Your task to perform on an android device: Search for seafood restaurants on Google Maps Image 0: 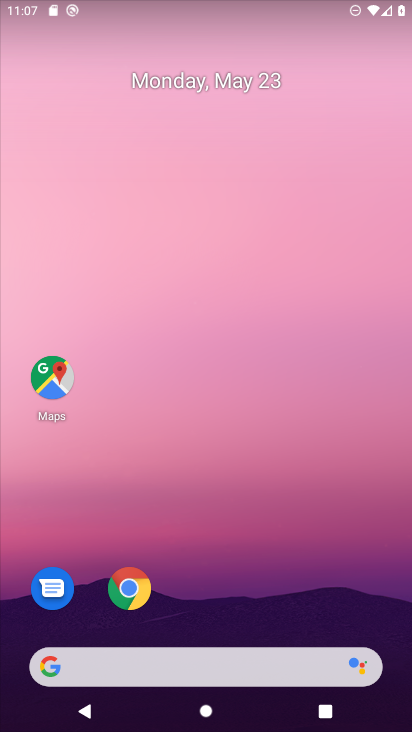
Step 0: click (60, 370)
Your task to perform on an android device: Search for seafood restaurants on Google Maps Image 1: 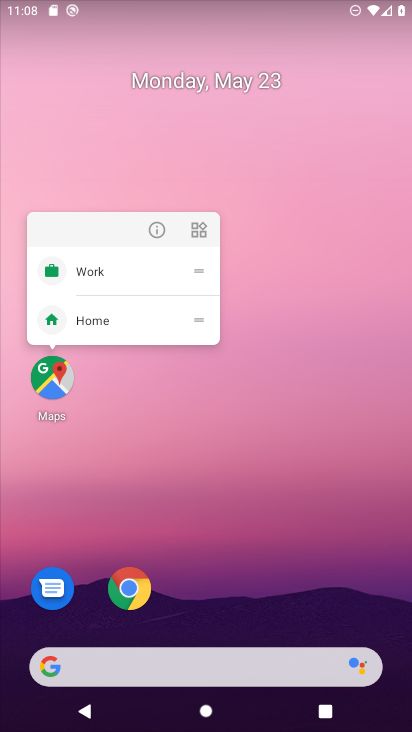
Step 1: click (52, 386)
Your task to perform on an android device: Search for seafood restaurants on Google Maps Image 2: 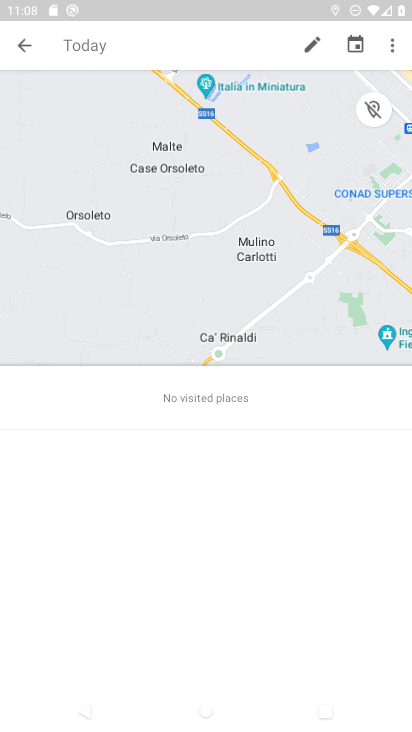
Step 2: click (5, 50)
Your task to perform on an android device: Search for seafood restaurants on Google Maps Image 3: 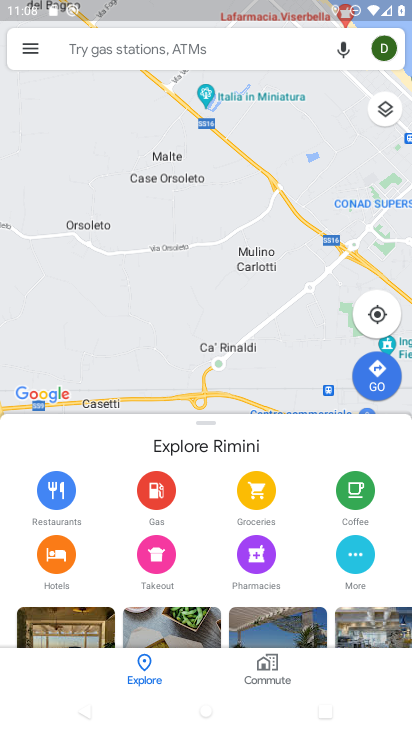
Step 3: click (122, 53)
Your task to perform on an android device: Search for seafood restaurants on Google Maps Image 4: 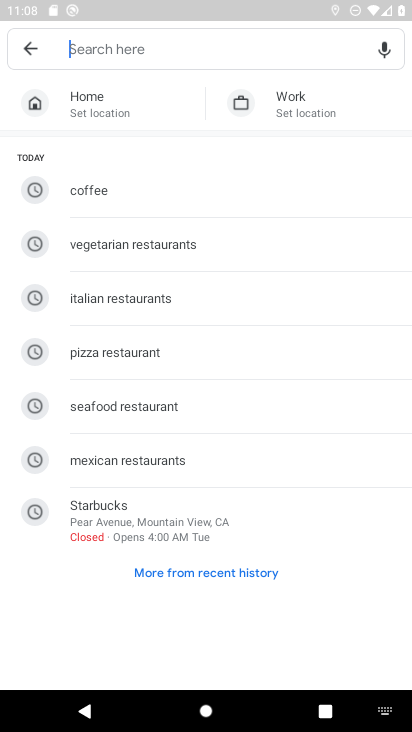
Step 4: type "seafood restaurants"
Your task to perform on an android device: Search for seafood restaurants on Google Maps Image 5: 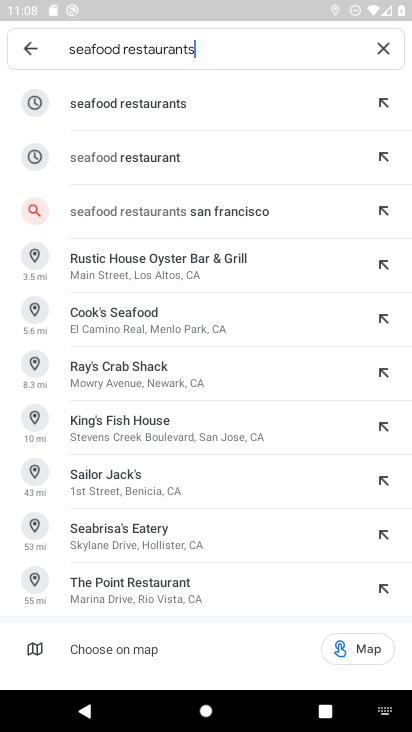
Step 5: click (189, 100)
Your task to perform on an android device: Search for seafood restaurants on Google Maps Image 6: 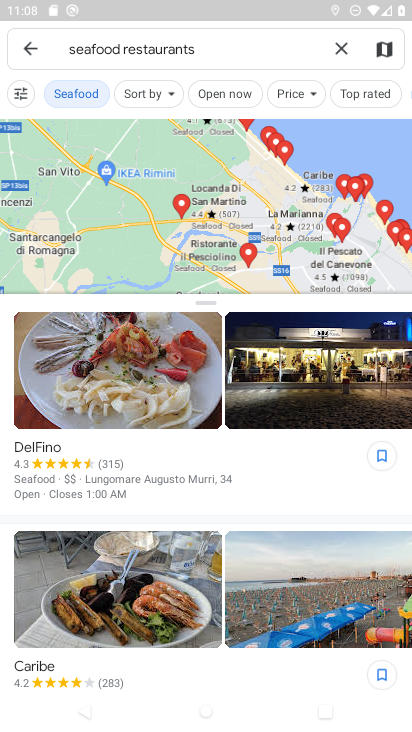
Step 6: task complete